Your task to perform on an android device: Open Google Image 0: 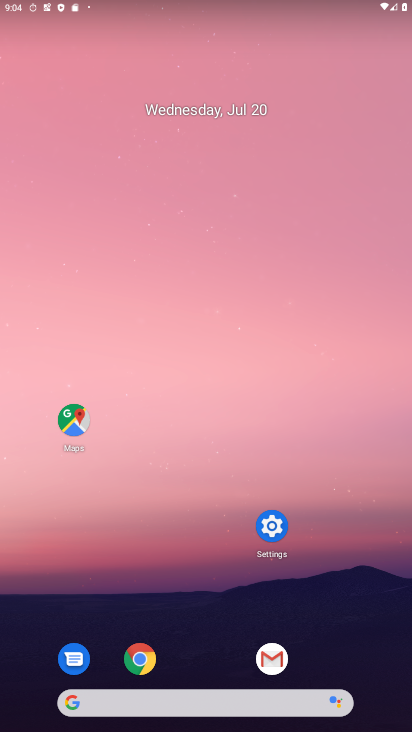
Step 0: press home button
Your task to perform on an android device: Open Google Image 1: 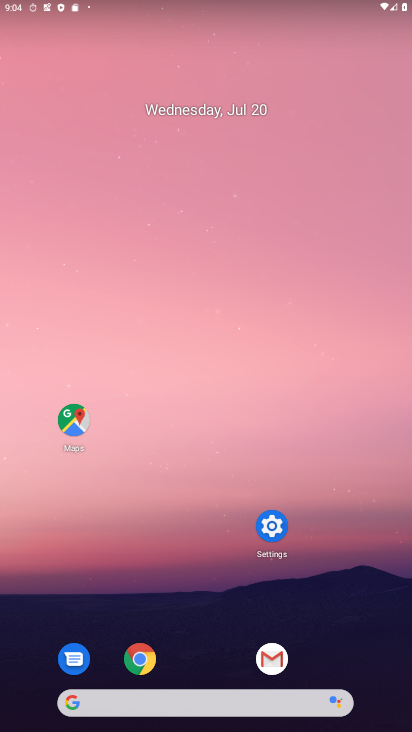
Step 1: click (139, 704)
Your task to perform on an android device: Open Google Image 2: 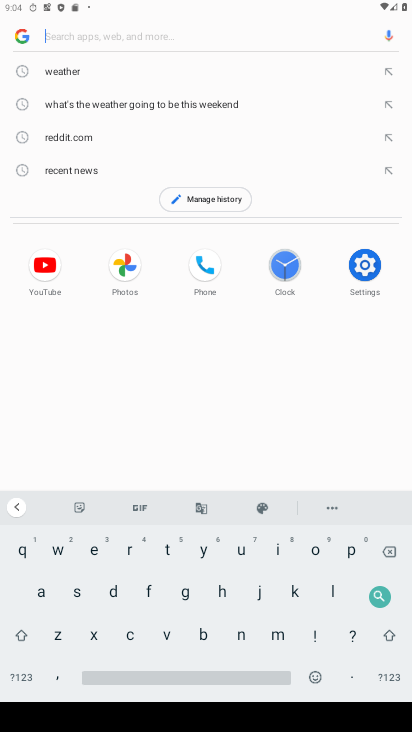
Step 2: click (33, 34)
Your task to perform on an android device: Open Google Image 3: 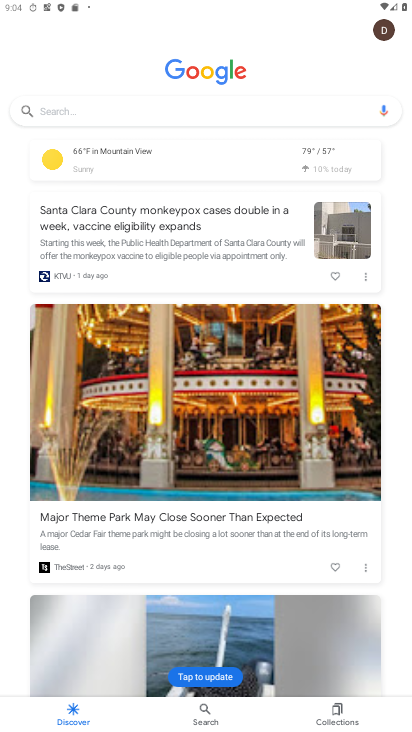
Step 3: task complete